Your task to perform on an android device: change your default location settings in chrome Image 0: 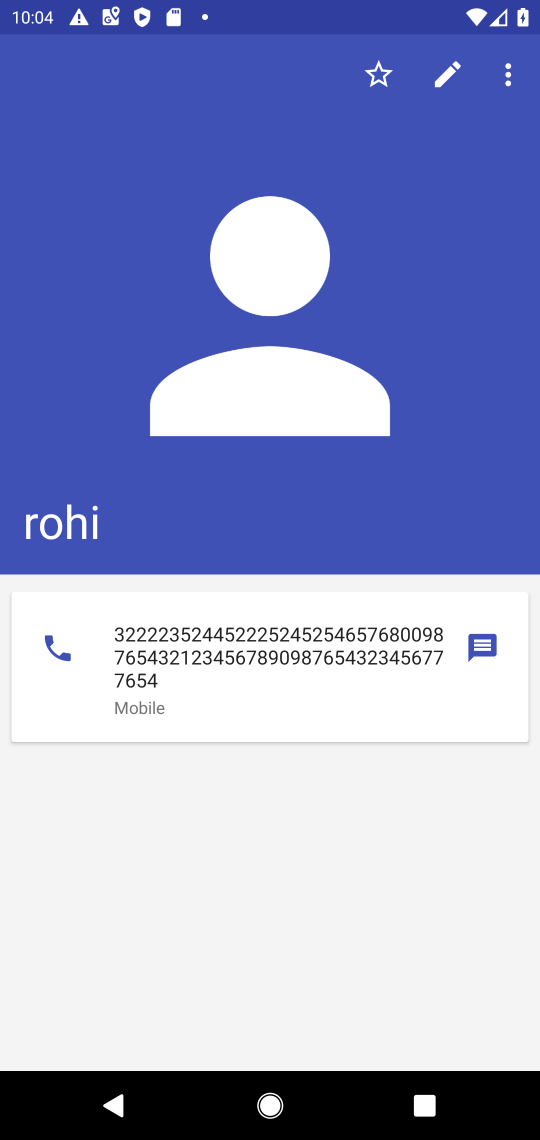
Step 0: press home button
Your task to perform on an android device: change your default location settings in chrome Image 1: 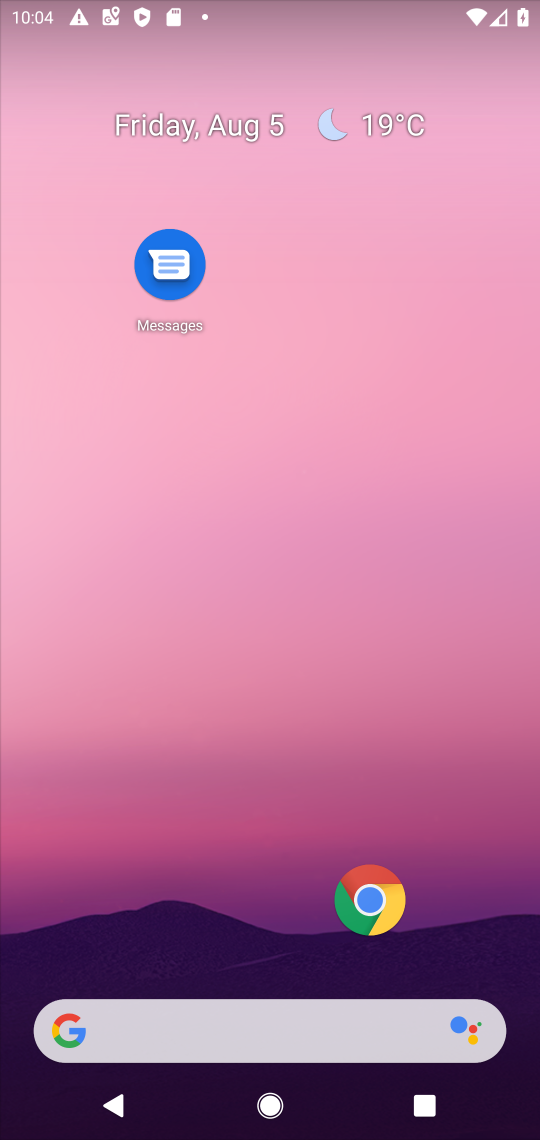
Step 1: drag from (243, 939) to (266, 28)
Your task to perform on an android device: change your default location settings in chrome Image 2: 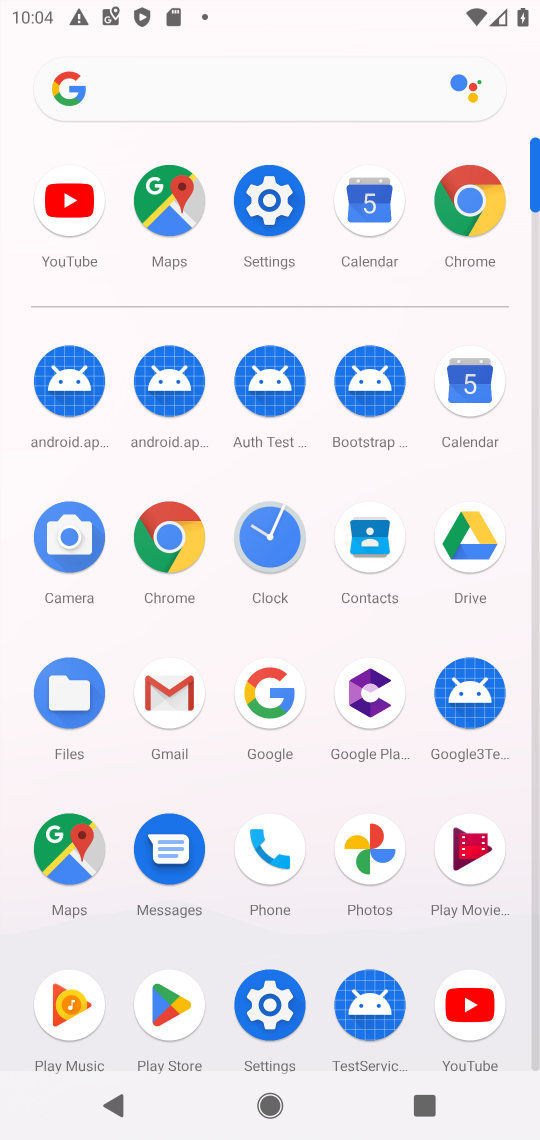
Step 2: click (481, 182)
Your task to perform on an android device: change your default location settings in chrome Image 3: 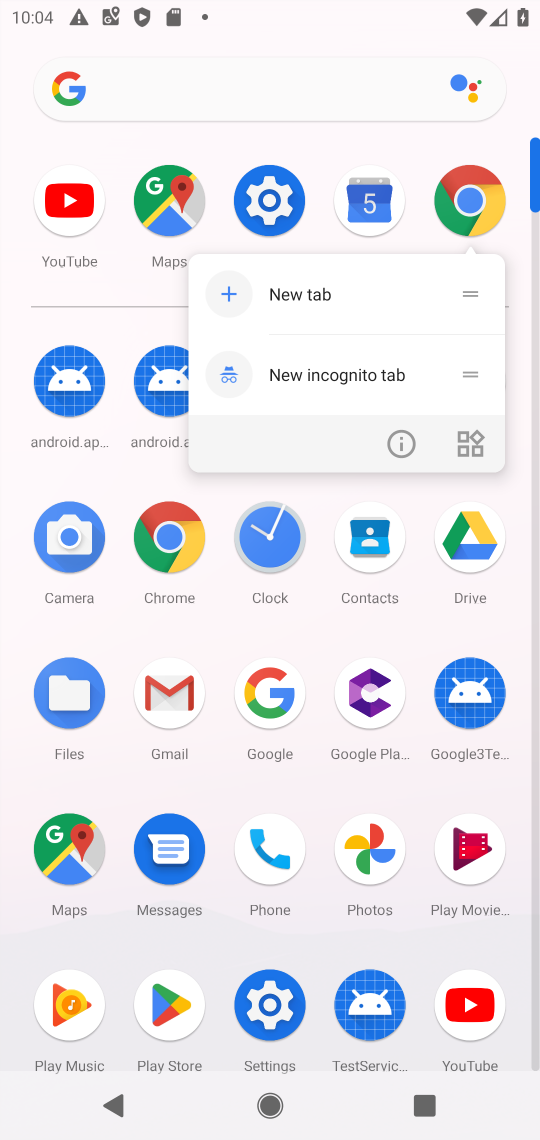
Step 3: click (485, 190)
Your task to perform on an android device: change your default location settings in chrome Image 4: 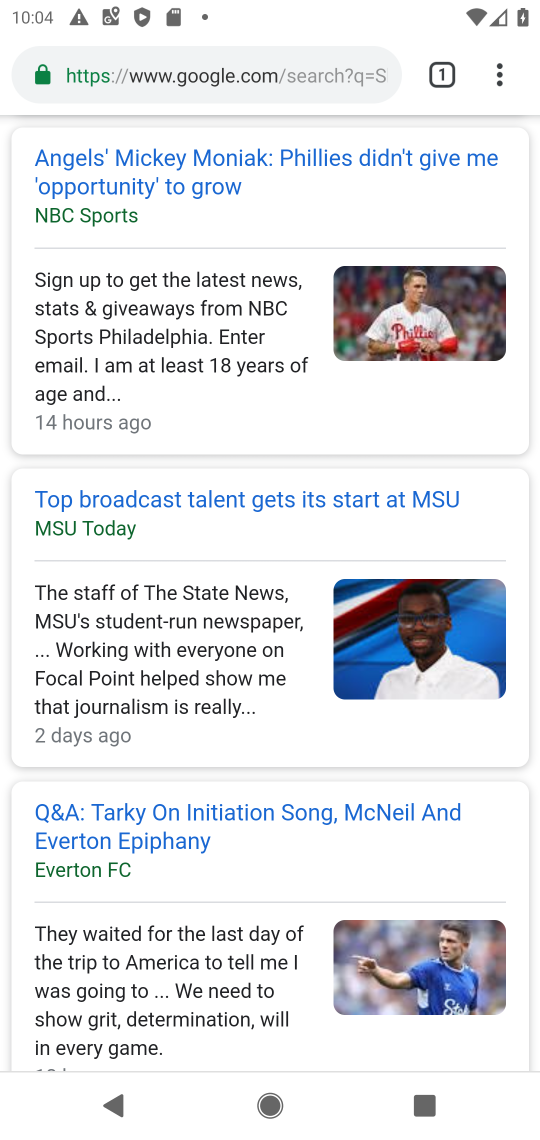
Step 4: drag from (260, 413) to (363, 1098)
Your task to perform on an android device: change your default location settings in chrome Image 5: 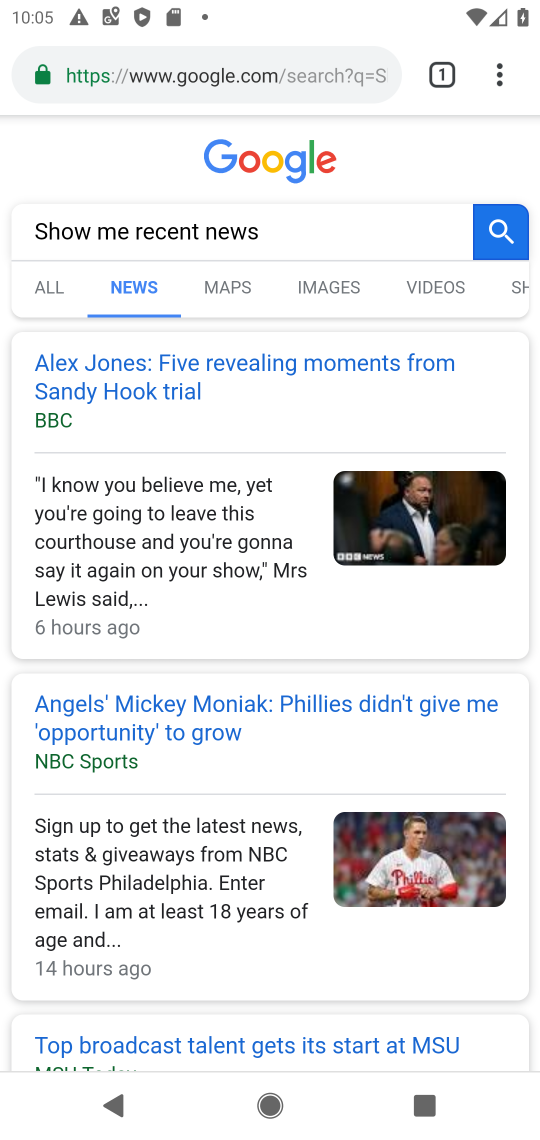
Step 5: drag from (493, 83) to (237, 850)
Your task to perform on an android device: change your default location settings in chrome Image 6: 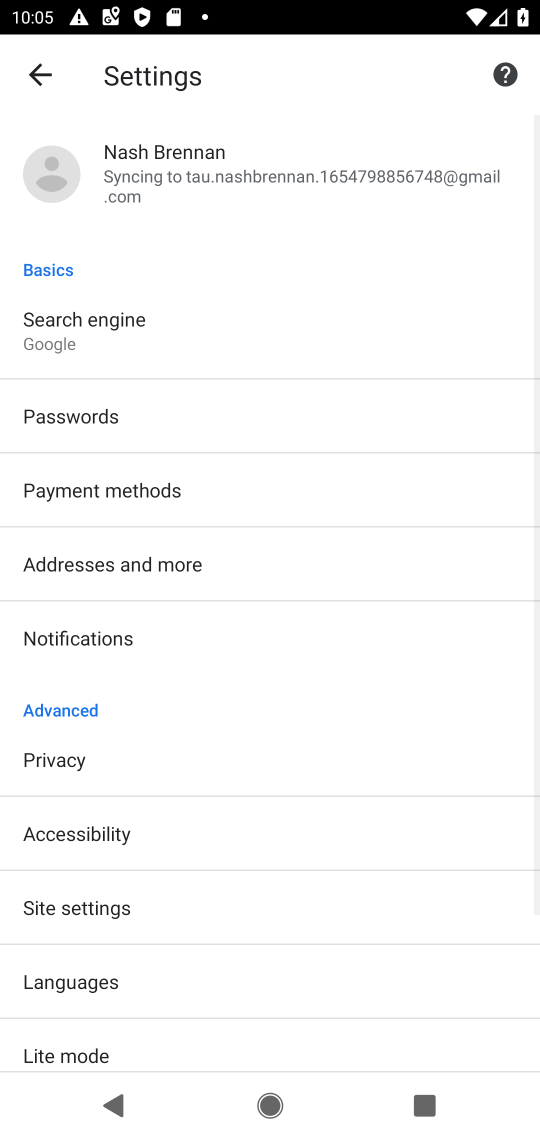
Step 6: drag from (237, 944) to (268, 314)
Your task to perform on an android device: change your default location settings in chrome Image 7: 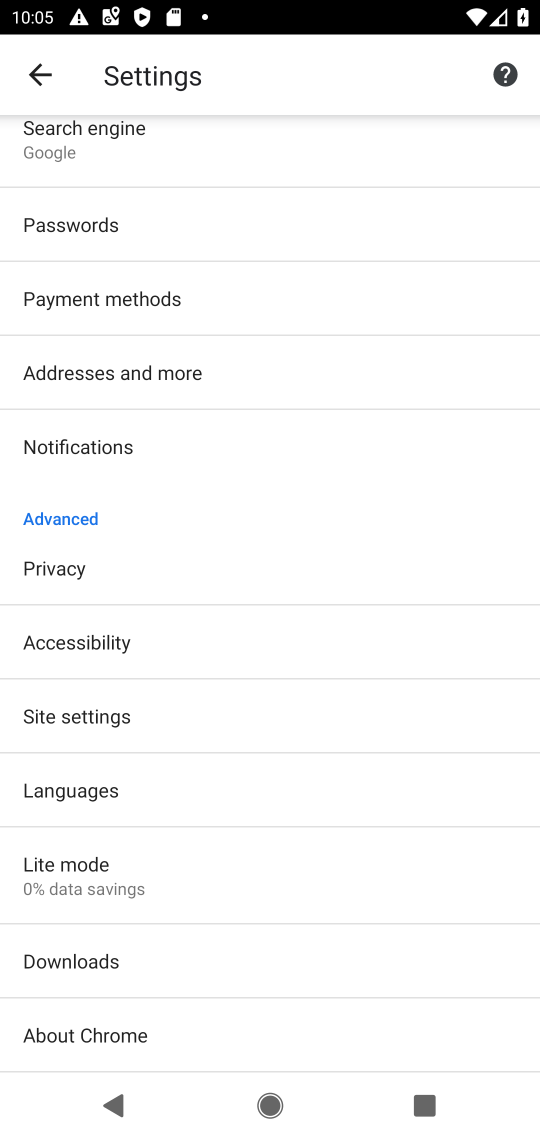
Step 7: drag from (251, 1019) to (269, 383)
Your task to perform on an android device: change your default location settings in chrome Image 8: 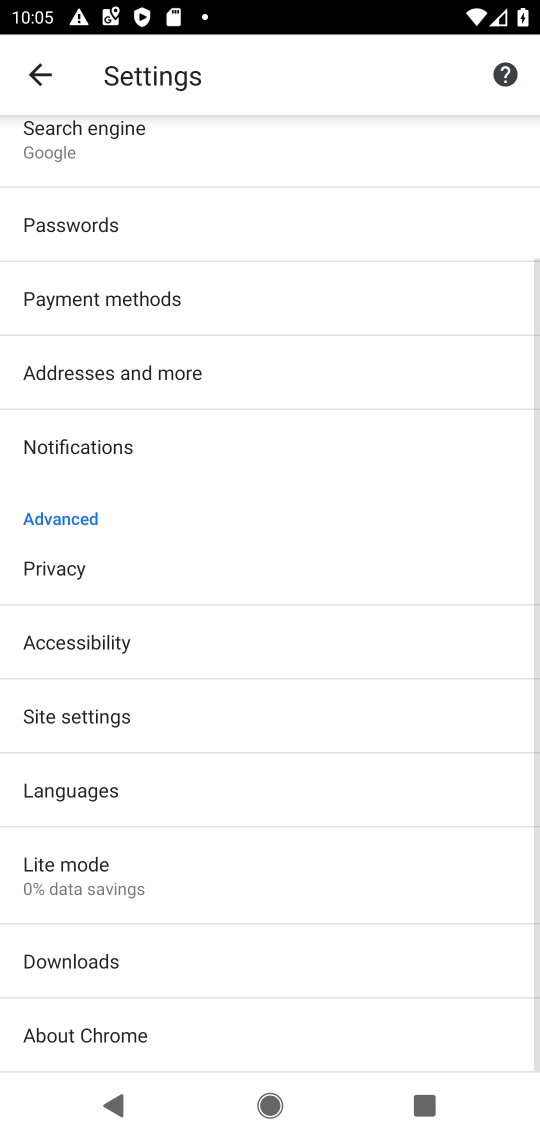
Step 8: click (269, 385)
Your task to perform on an android device: change your default location settings in chrome Image 9: 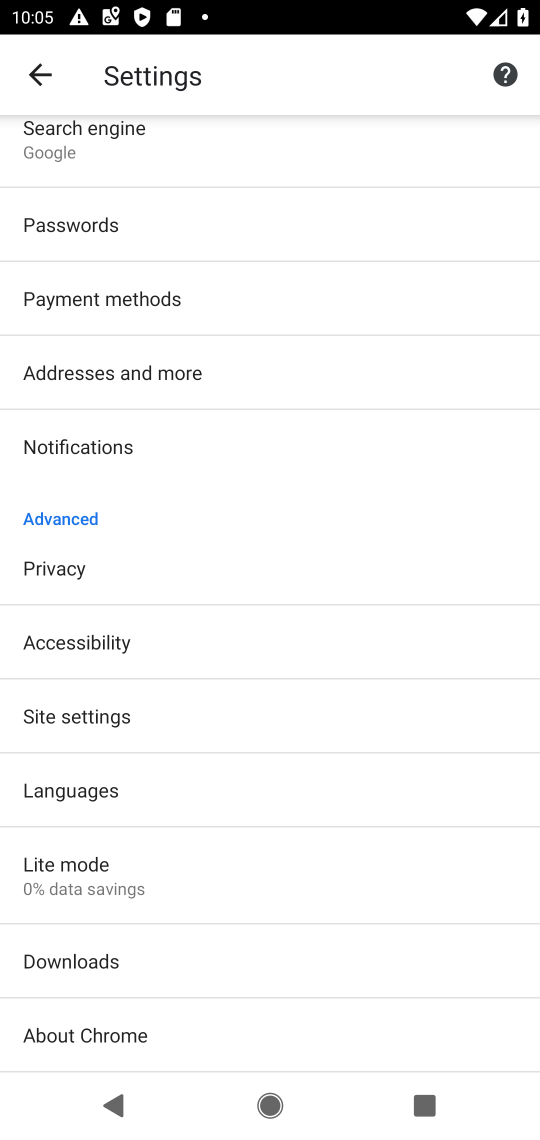
Step 9: click (85, 719)
Your task to perform on an android device: change your default location settings in chrome Image 10: 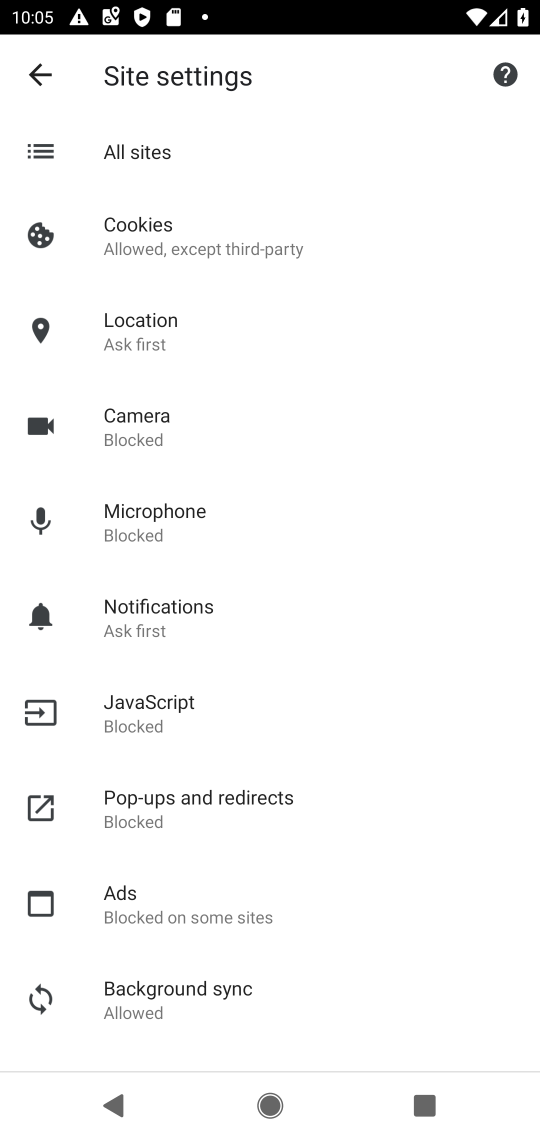
Step 10: click (139, 311)
Your task to perform on an android device: change your default location settings in chrome Image 11: 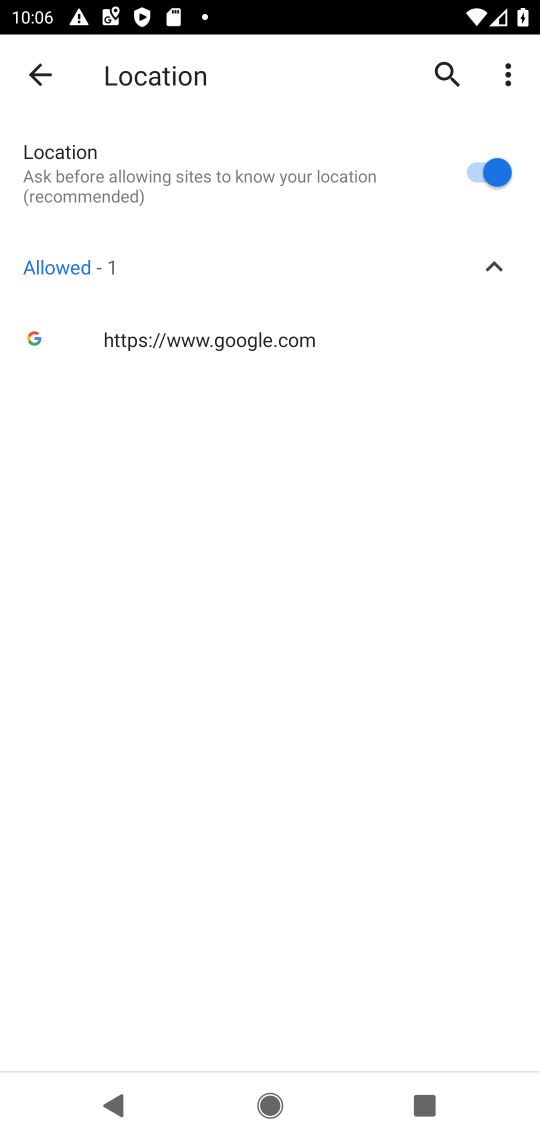
Step 11: task complete